Your task to perform on an android device: turn on priority inbox in the gmail app Image 0: 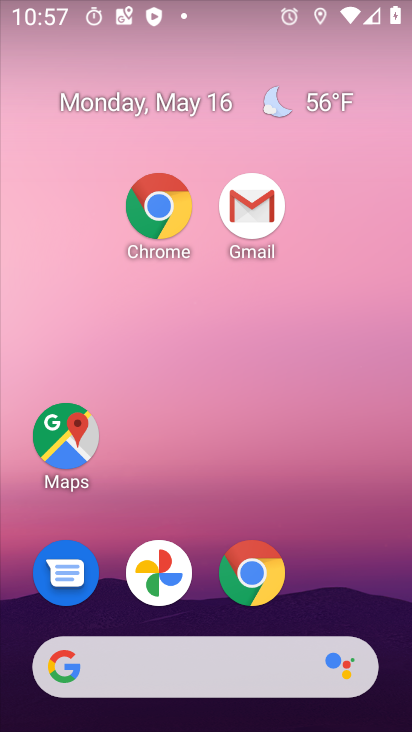
Step 0: drag from (395, 634) to (162, 76)
Your task to perform on an android device: turn on priority inbox in the gmail app Image 1: 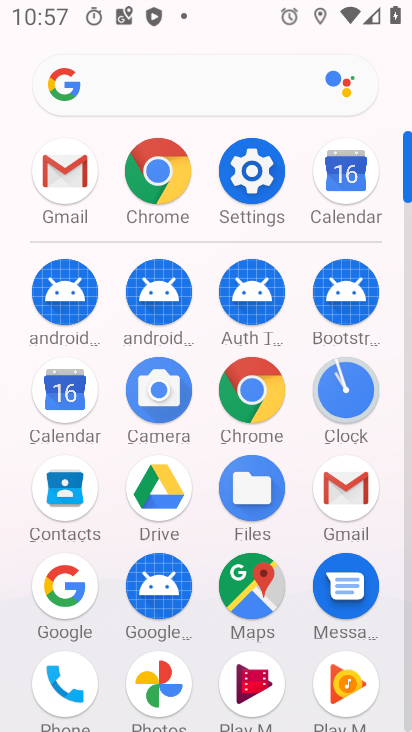
Step 1: click (258, 187)
Your task to perform on an android device: turn on priority inbox in the gmail app Image 2: 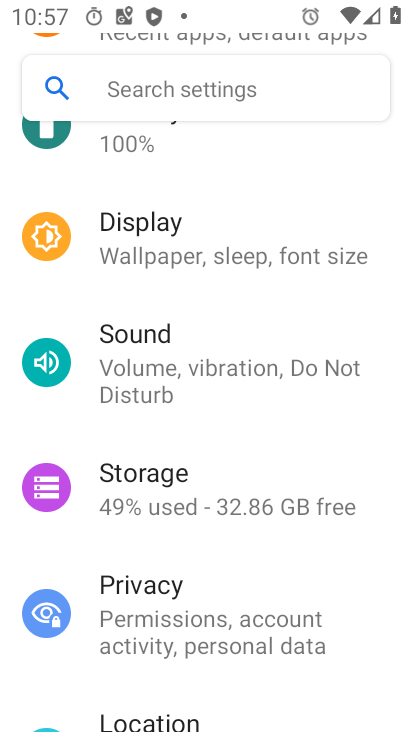
Step 2: press home button
Your task to perform on an android device: turn on priority inbox in the gmail app Image 3: 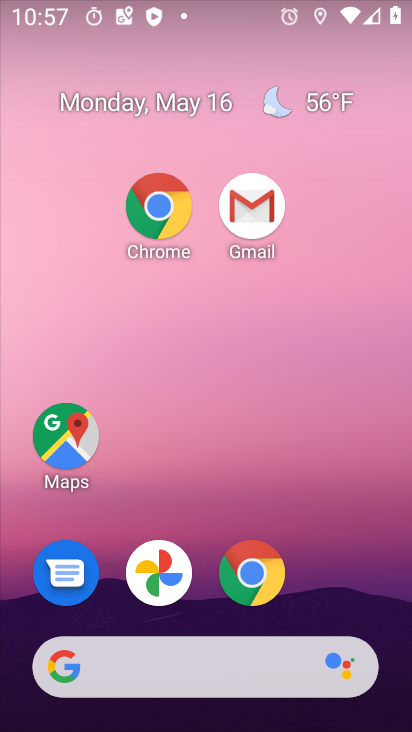
Step 3: drag from (313, 622) to (152, 81)
Your task to perform on an android device: turn on priority inbox in the gmail app Image 4: 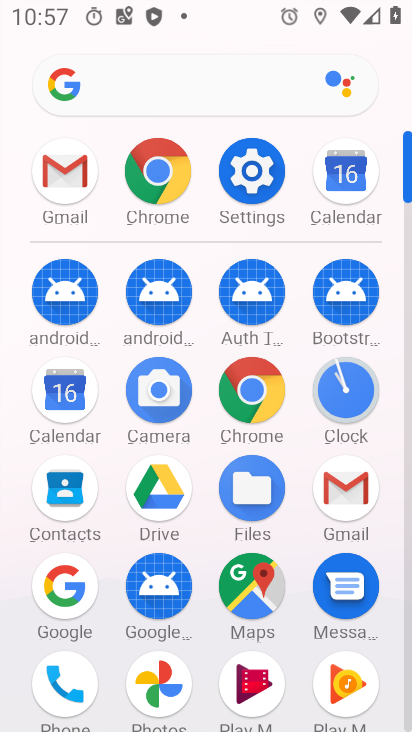
Step 4: click (351, 491)
Your task to perform on an android device: turn on priority inbox in the gmail app Image 5: 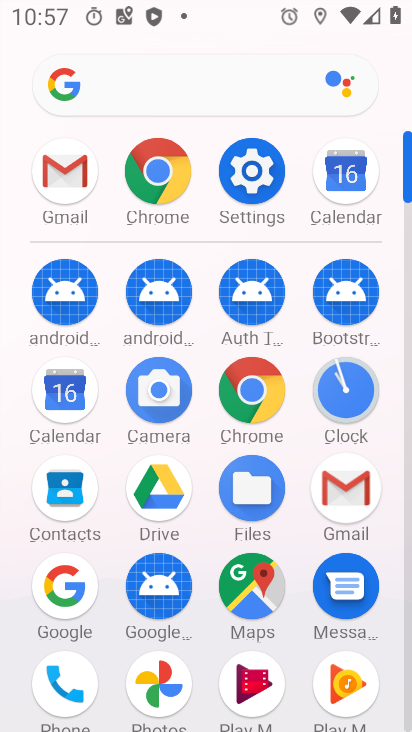
Step 5: click (350, 490)
Your task to perform on an android device: turn on priority inbox in the gmail app Image 6: 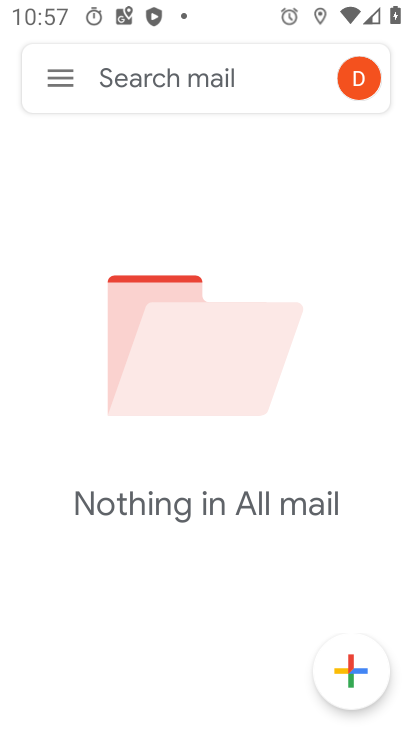
Step 6: click (60, 68)
Your task to perform on an android device: turn on priority inbox in the gmail app Image 7: 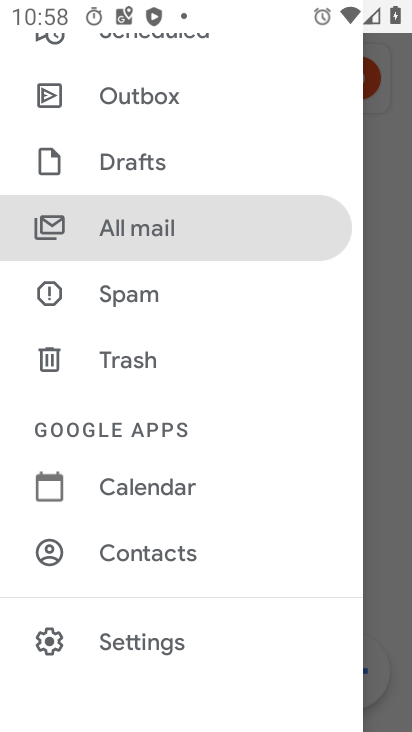
Step 7: click (138, 645)
Your task to perform on an android device: turn on priority inbox in the gmail app Image 8: 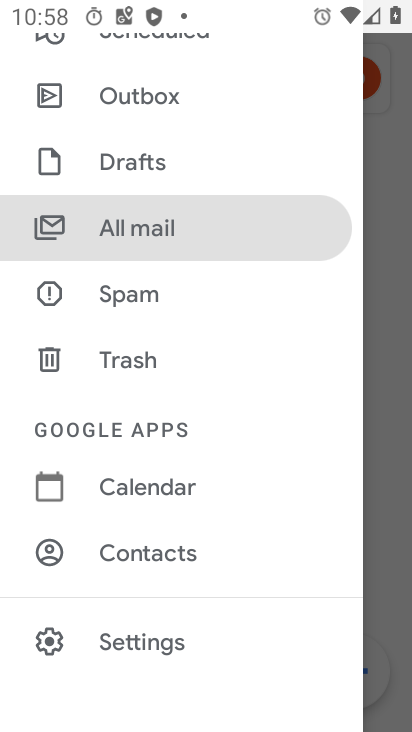
Step 8: click (145, 646)
Your task to perform on an android device: turn on priority inbox in the gmail app Image 9: 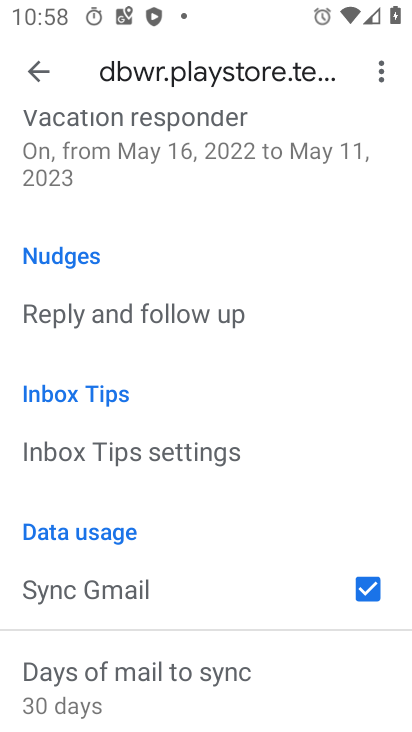
Step 9: drag from (97, 212) to (189, 502)
Your task to perform on an android device: turn on priority inbox in the gmail app Image 10: 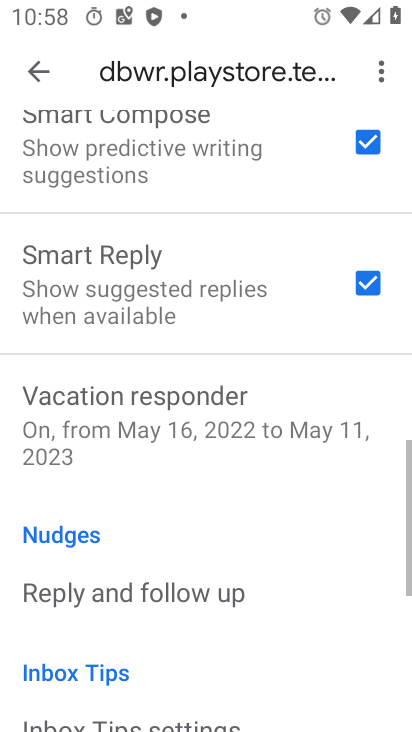
Step 10: drag from (118, 214) to (178, 470)
Your task to perform on an android device: turn on priority inbox in the gmail app Image 11: 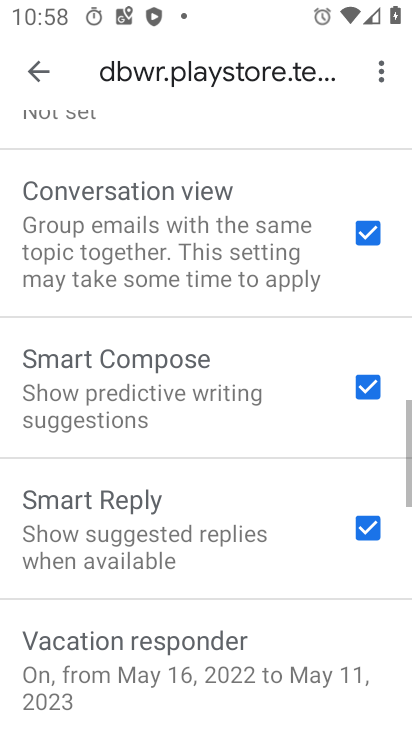
Step 11: drag from (118, 79) to (211, 480)
Your task to perform on an android device: turn on priority inbox in the gmail app Image 12: 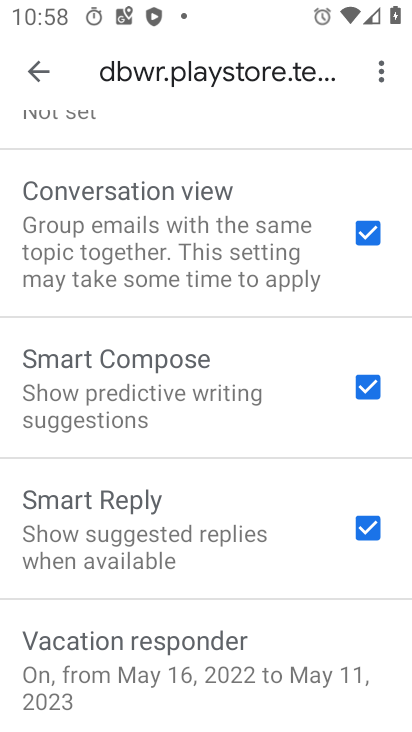
Step 12: drag from (128, 163) to (212, 512)
Your task to perform on an android device: turn on priority inbox in the gmail app Image 13: 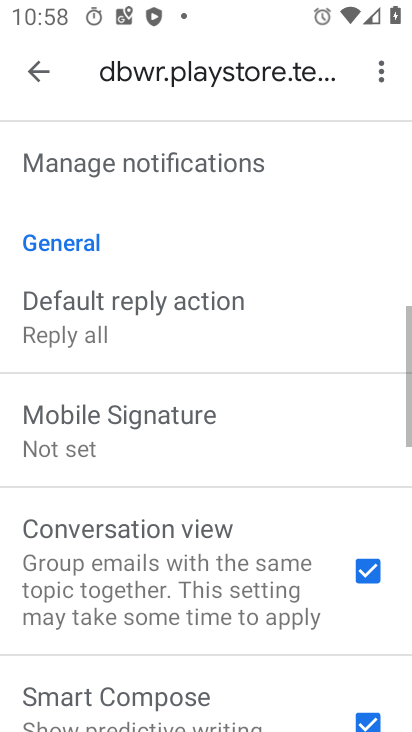
Step 13: drag from (108, 179) to (172, 545)
Your task to perform on an android device: turn on priority inbox in the gmail app Image 14: 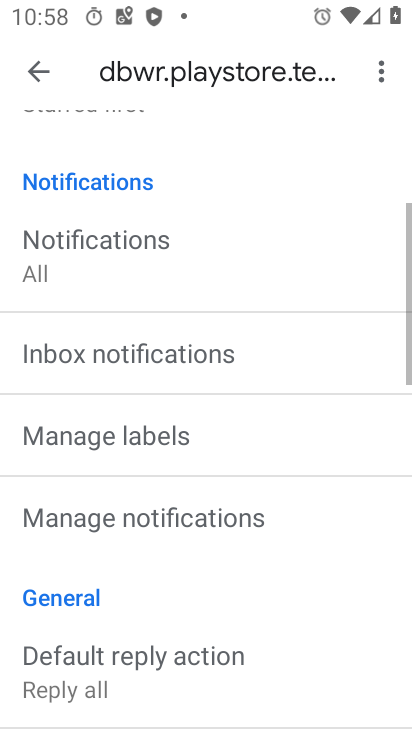
Step 14: drag from (102, 162) to (188, 585)
Your task to perform on an android device: turn on priority inbox in the gmail app Image 15: 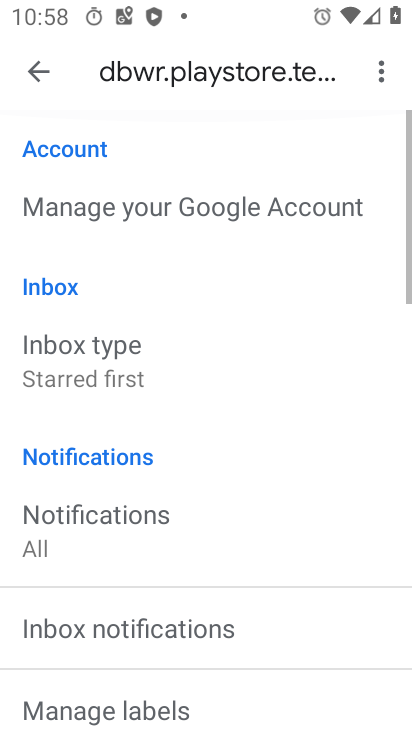
Step 15: drag from (71, 122) to (155, 462)
Your task to perform on an android device: turn on priority inbox in the gmail app Image 16: 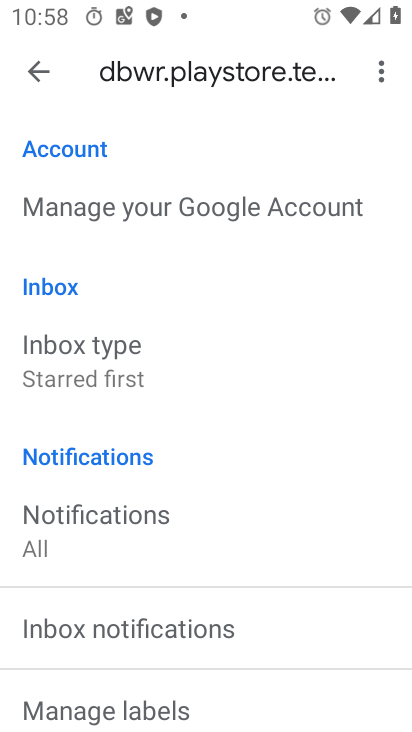
Step 16: click (100, 395)
Your task to perform on an android device: turn on priority inbox in the gmail app Image 17: 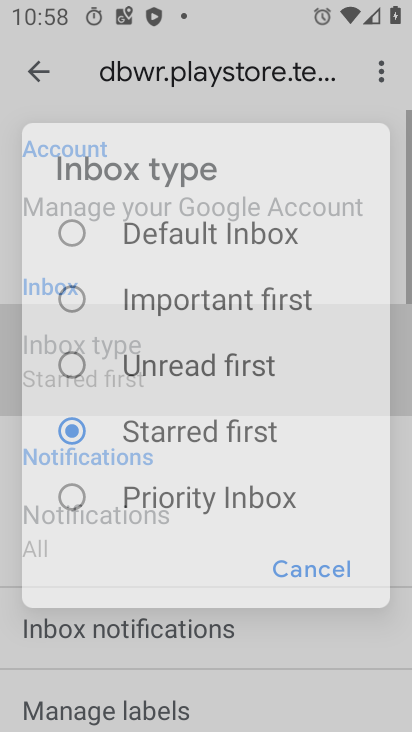
Step 17: click (105, 392)
Your task to perform on an android device: turn on priority inbox in the gmail app Image 18: 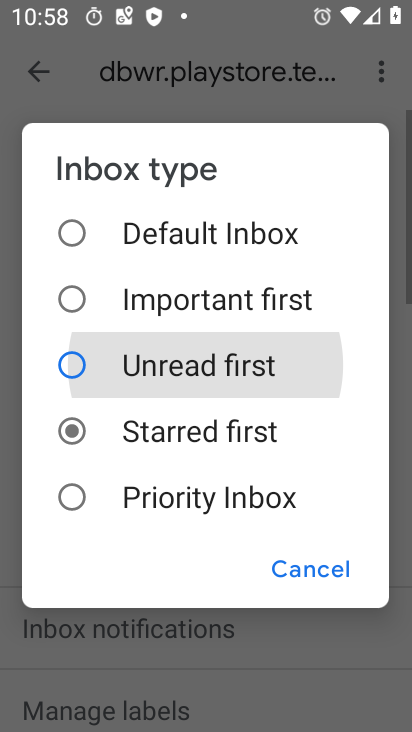
Step 18: click (99, 386)
Your task to perform on an android device: turn on priority inbox in the gmail app Image 19: 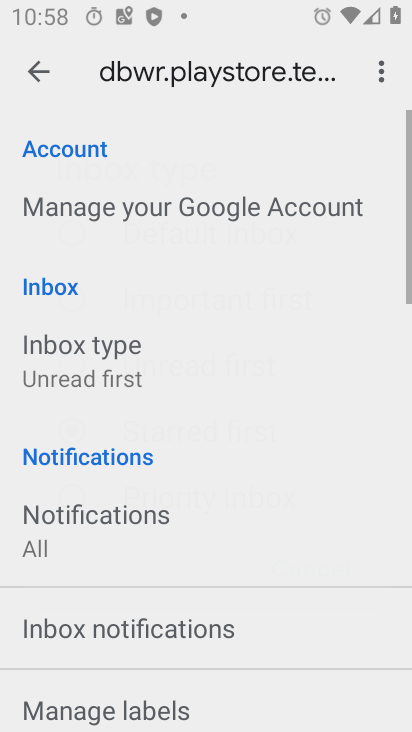
Step 19: click (87, 367)
Your task to perform on an android device: turn on priority inbox in the gmail app Image 20: 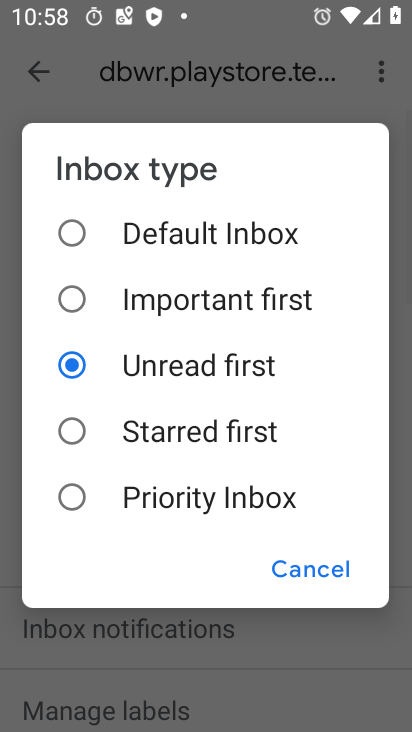
Step 20: click (65, 499)
Your task to perform on an android device: turn on priority inbox in the gmail app Image 21: 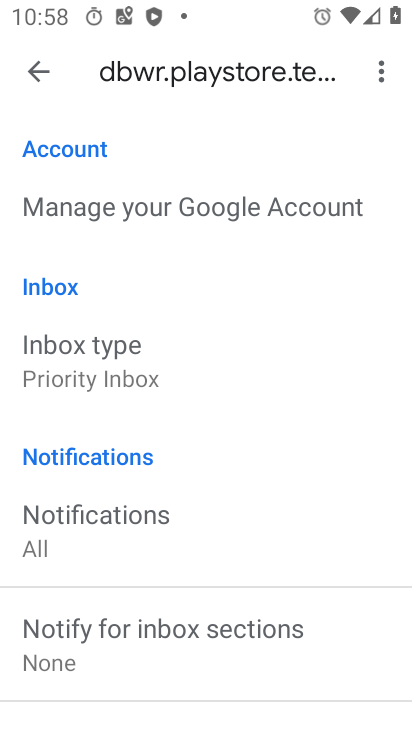
Step 21: task complete